Your task to perform on an android device: open chrome and create a bookmark for the current page Image 0: 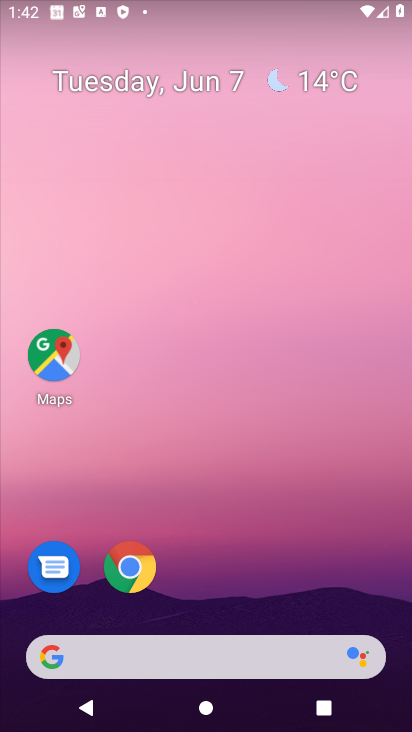
Step 0: drag from (145, 654) to (177, 81)
Your task to perform on an android device: open chrome and create a bookmark for the current page Image 1: 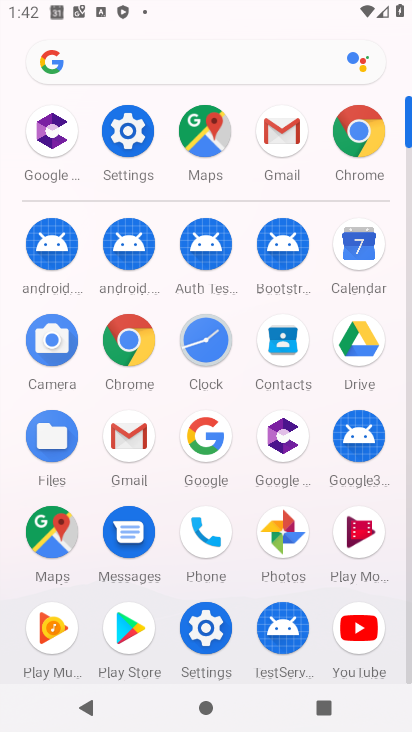
Step 1: click (125, 360)
Your task to perform on an android device: open chrome and create a bookmark for the current page Image 2: 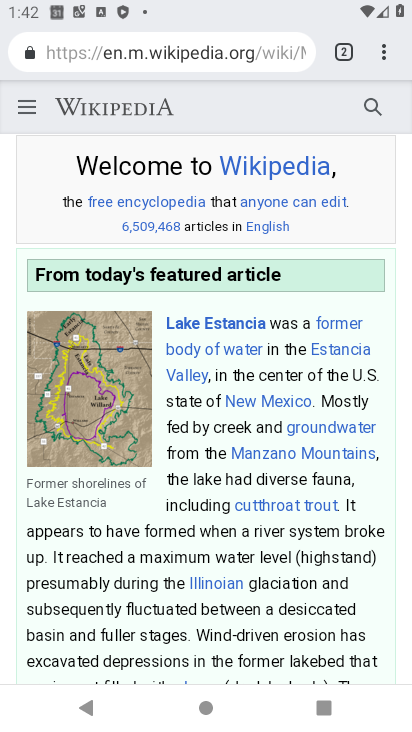
Step 2: click (389, 50)
Your task to perform on an android device: open chrome and create a bookmark for the current page Image 3: 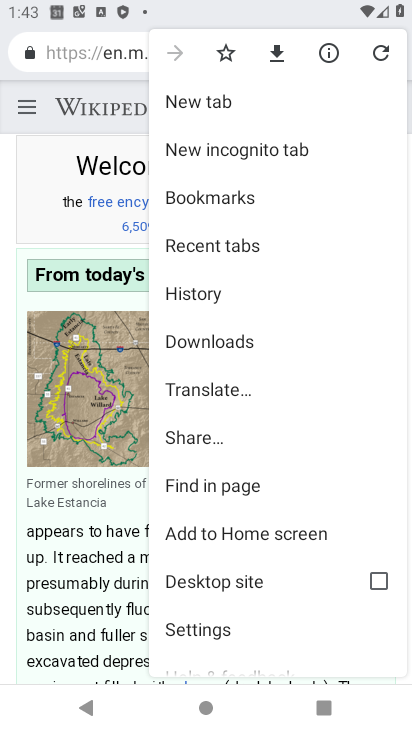
Step 3: click (202, 242)
Your task to perform on an android device: open chrome and create a bookmark for the current page Image 4: 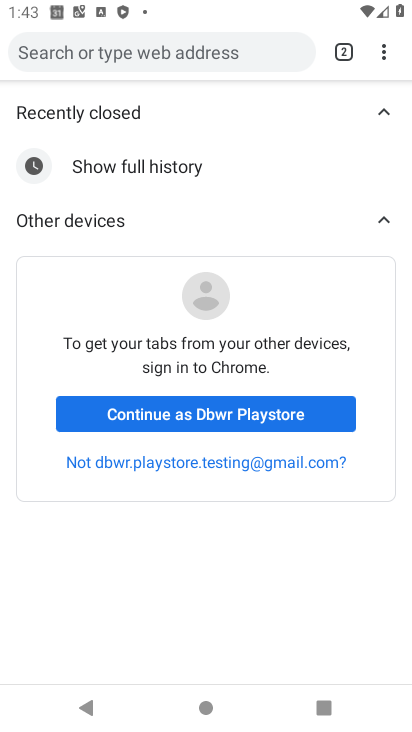
Step 4: task complete